Your task to perform on an android device: turn pop-ups off in chrome Image 0: 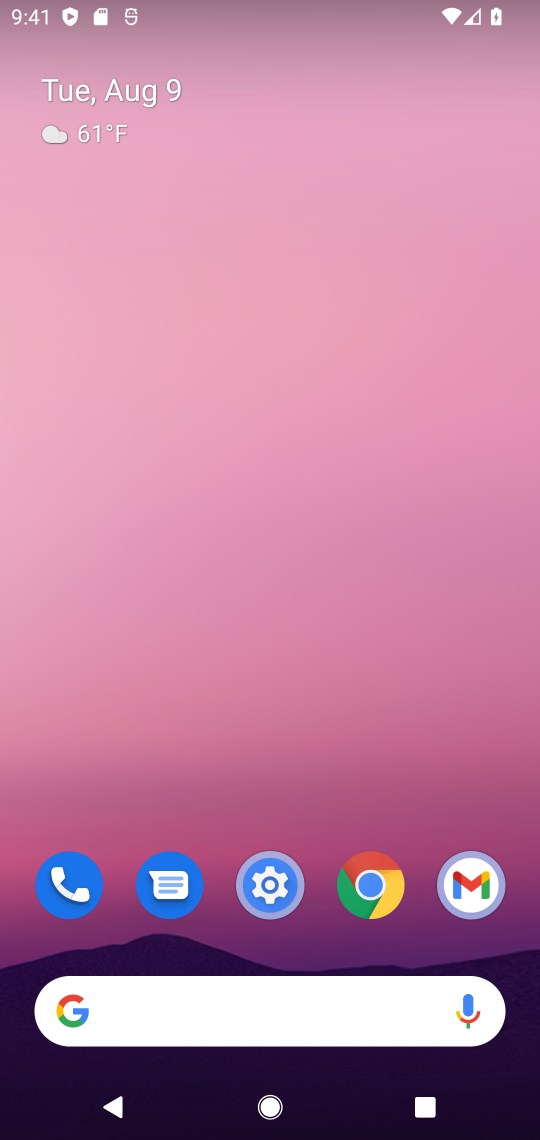
Step 0: press home button
Your task to perform on an android device: turn pop-ups off in chrome Image 1: 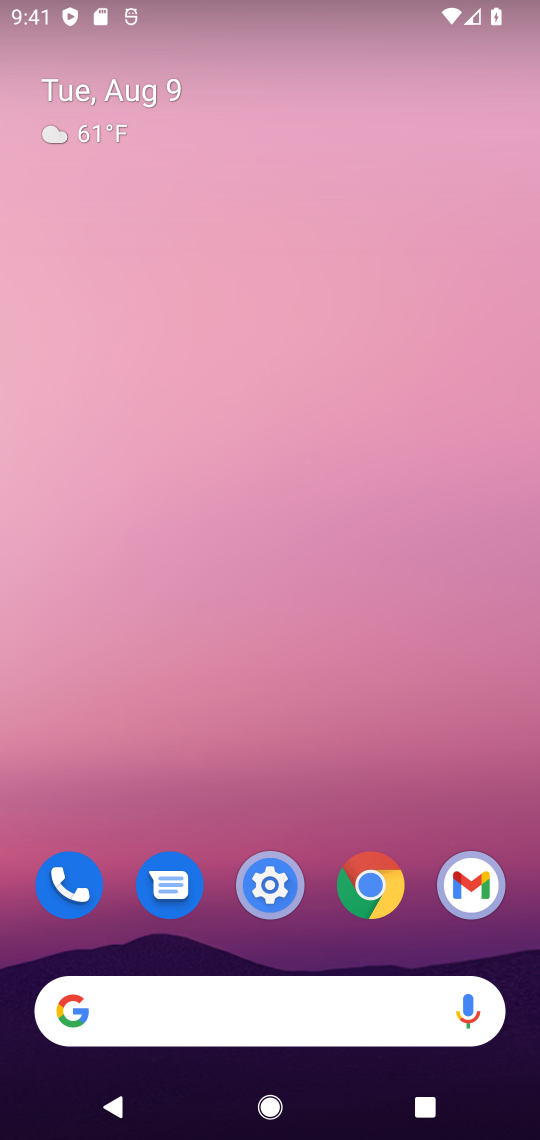
Step 1: click (371, 874)
Your task to perform on an android device: turn pop-ups off in chrome Image 2: 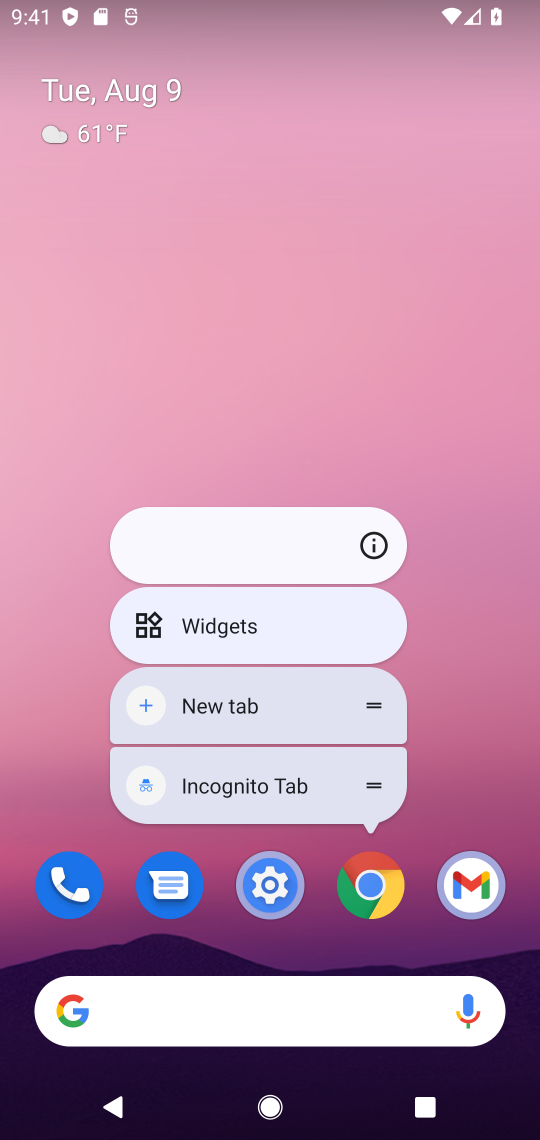
Step 2: click (521, 604)
Your task to perform on an android device: turn pop-ups off in chrome Image 3: 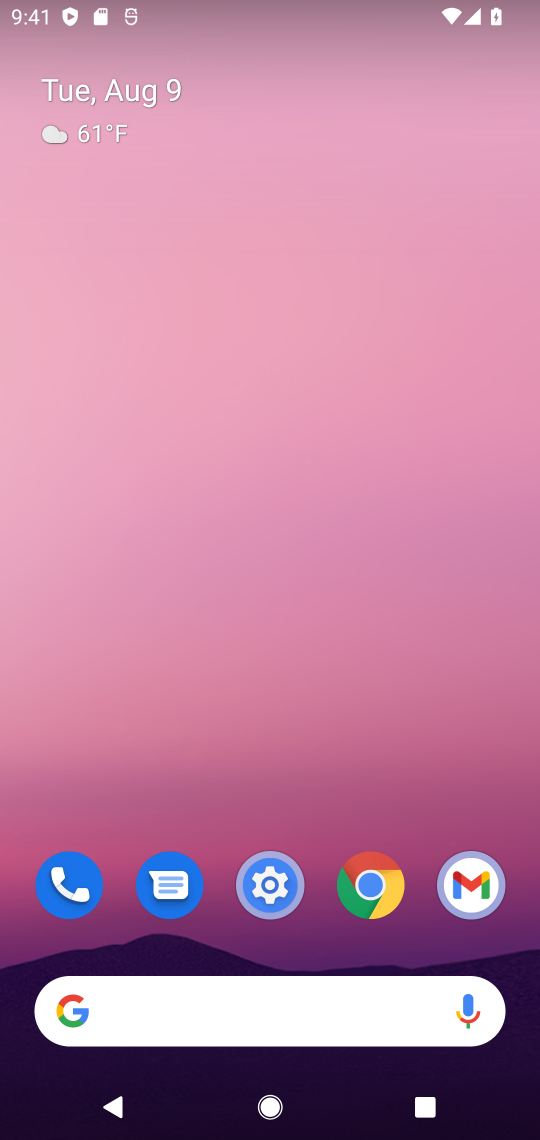
Step 3: click (367, 876)
Your task to perform on an android device: turn pop-ups off in chrome Image 4: 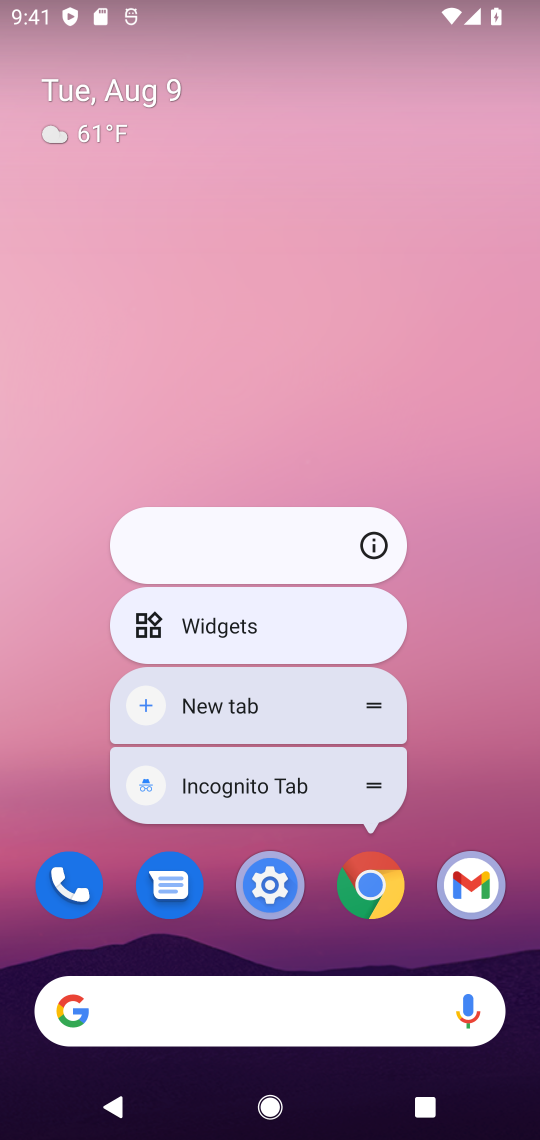
Step 4: click (484, 734)
Your task to perform on an android device: turn pop-ups off in chrome Image 5: 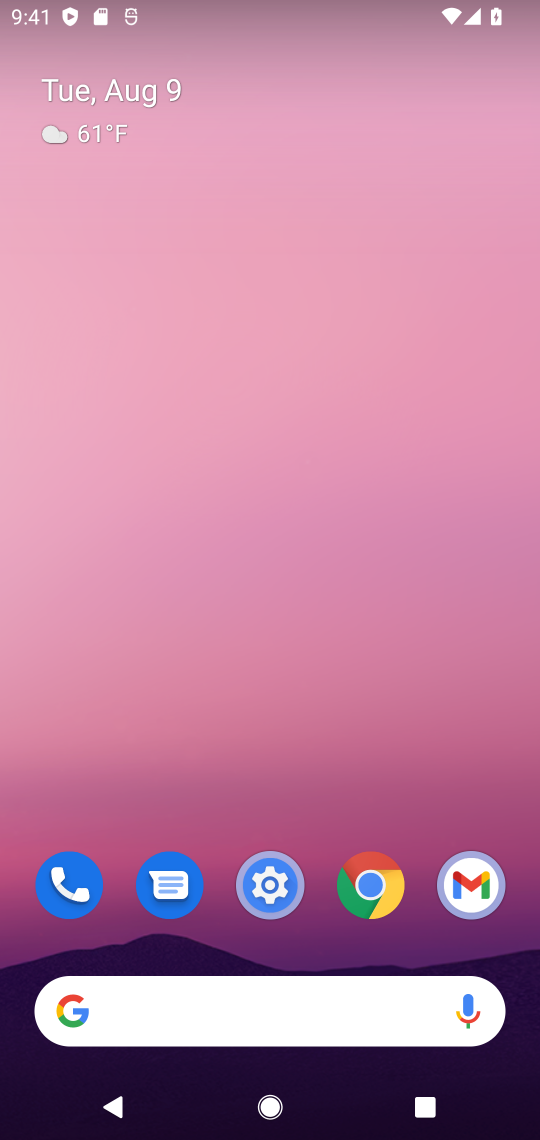
Step 5: drag from (312, 852) to (370, 133)
Your task to perform on an android device: turn pop-ups off in chrome Image 6: 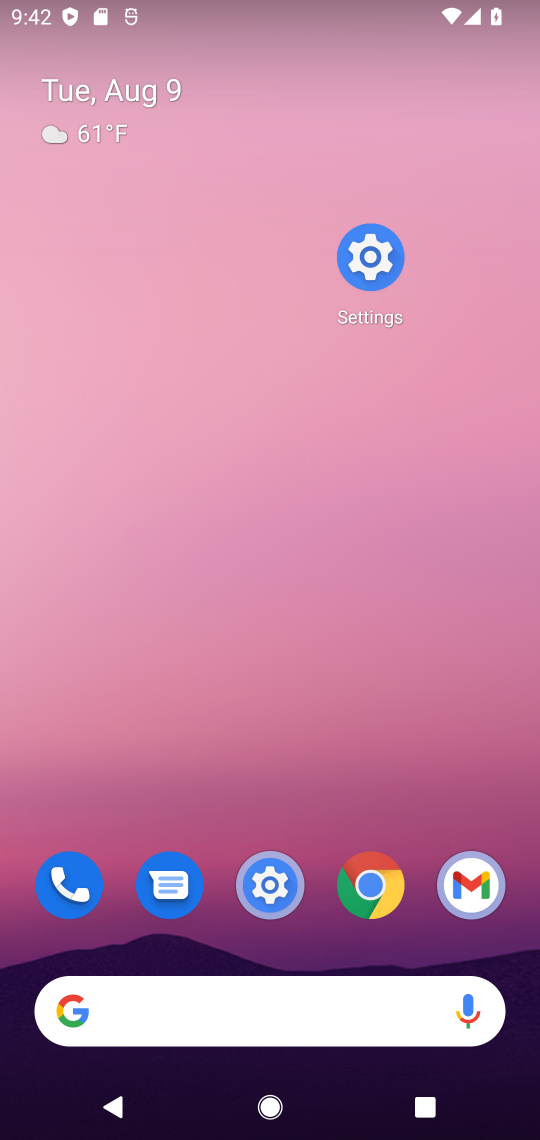
Step 6: click (434, 832)
Your task to perform on an android device: turn pop-ups off in chrome Image 7: 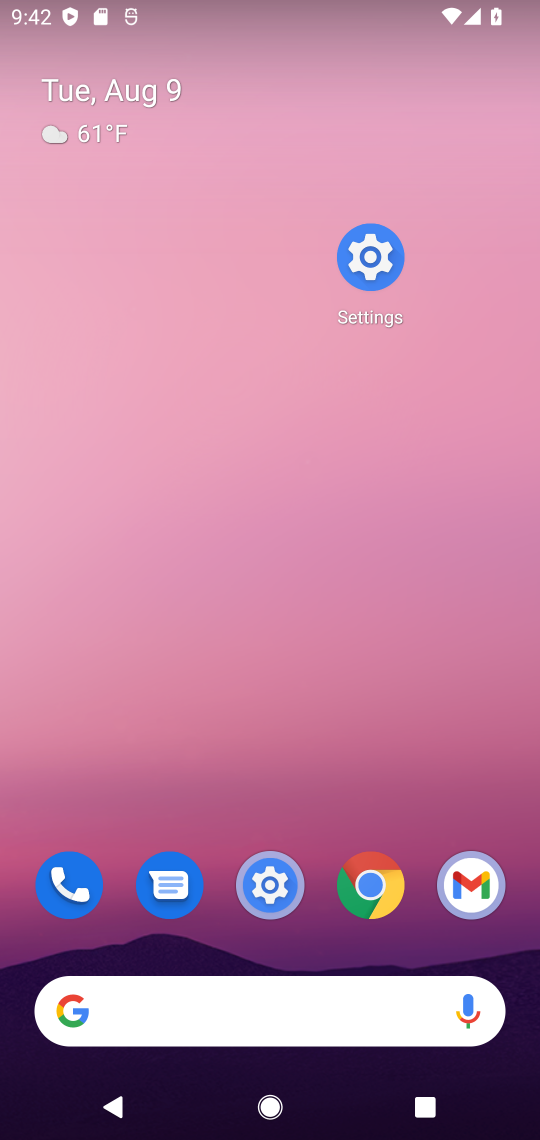
Step 7: drag from (419, 844) to (454, 70)
Your task to perform on an android device: turn pop-ups off in chrome Image 8: 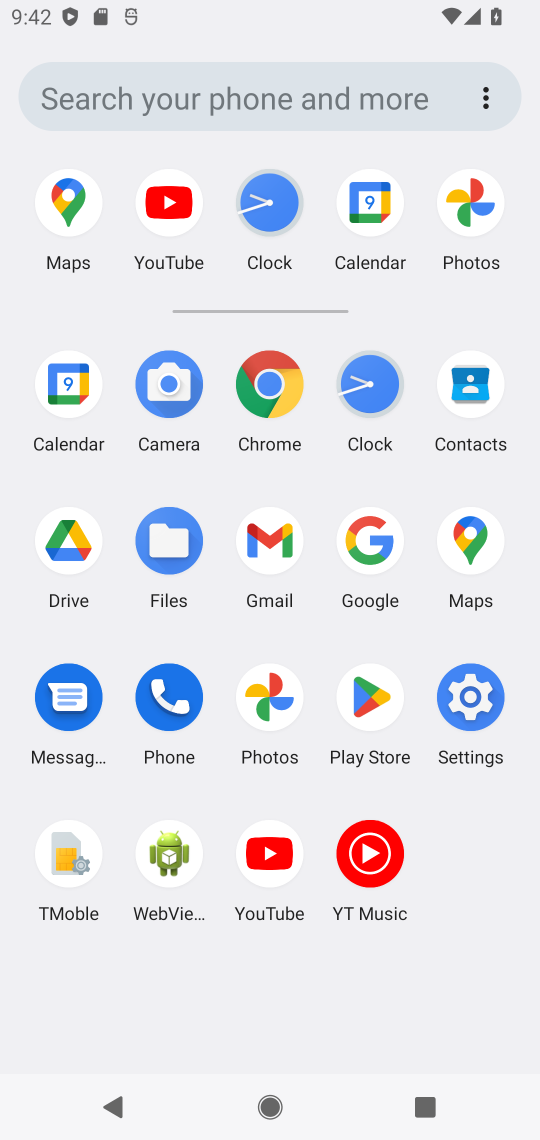
Step 8: click (269, 374)
Your task to perform on an android device: turn pop-ups off in chrome Image 9: 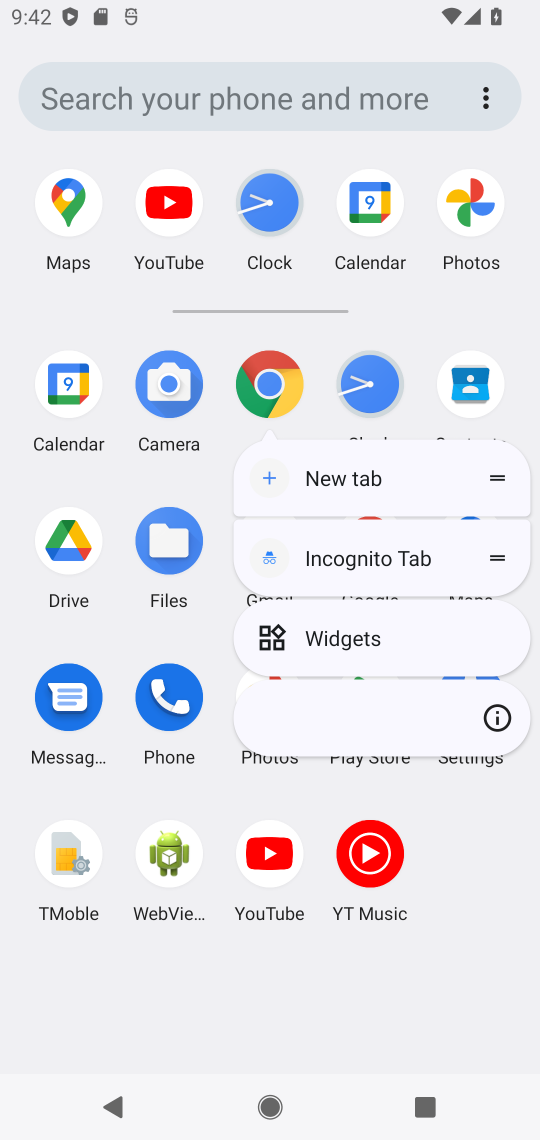
Step 9: click (266, 372)
Your task to perform on an android device: turn pop-ups off in chrome Image 10: 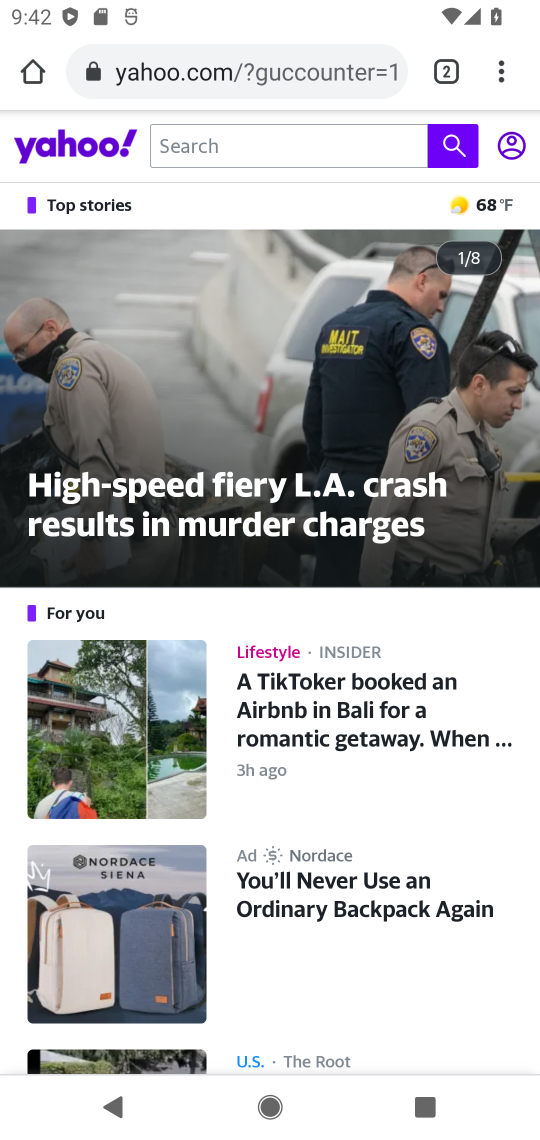
Step 10: click (497, 68)
Your task to perform on an android device: turn pop-ups off in chrome Image 11: 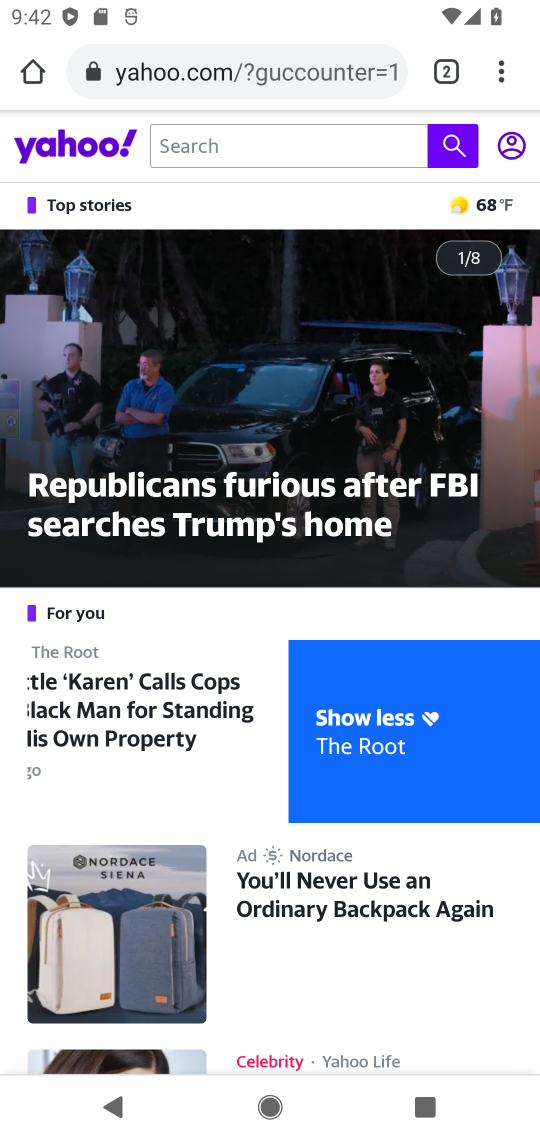
Step 11: click (500, 73)
Your task to perform on an android device: turn pop-ups off in chrome Image 12: 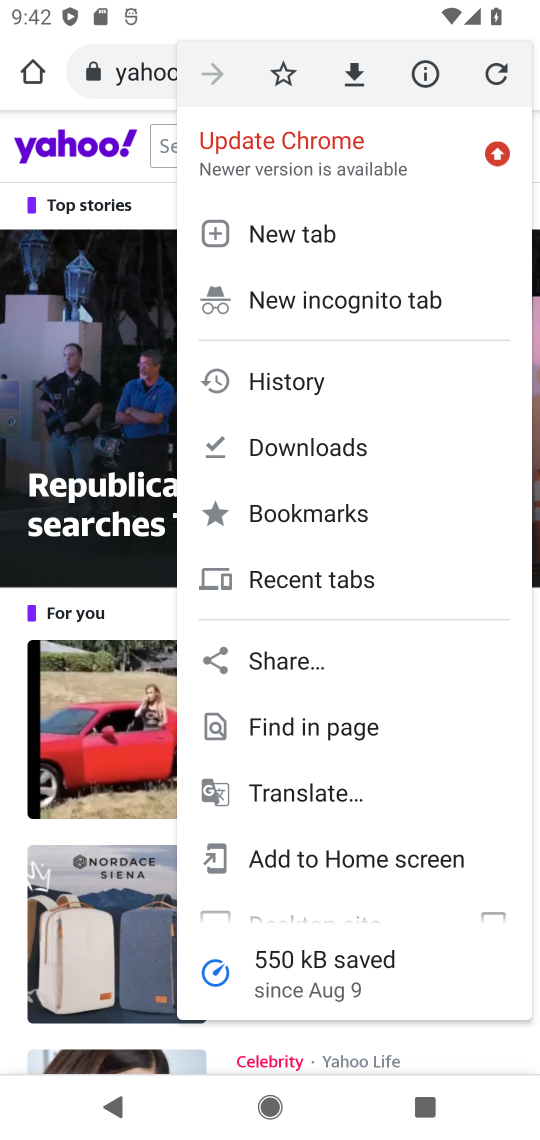
Step 12: drag from (384, 862) to (397, 147)
Your task to perform on an android device: turn pop-ups off in chrome Image 13: 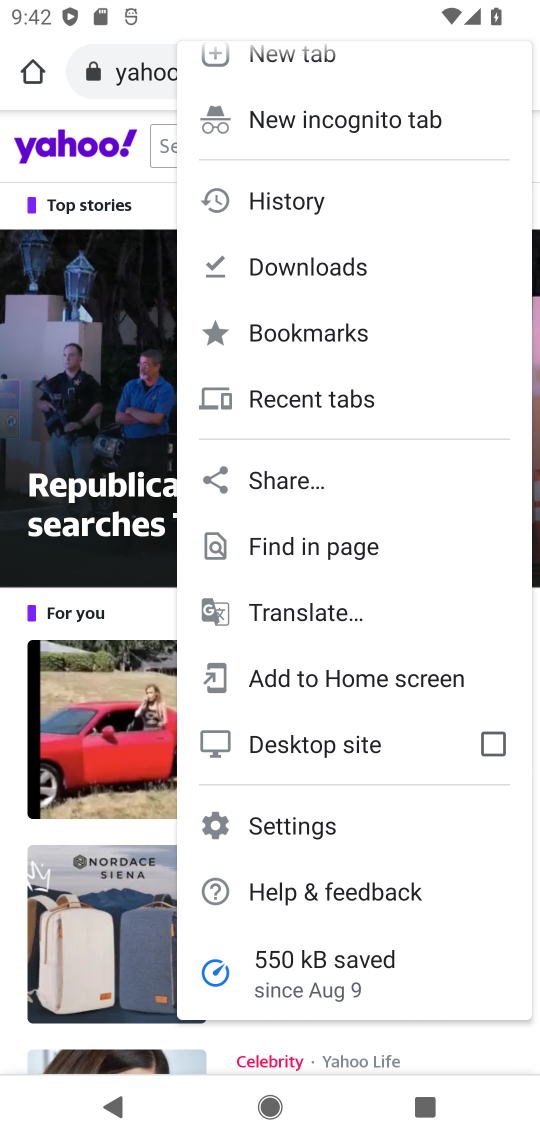
Step 13: click (344, 820)
Your task to perform on an android device: turn pop-ups off in chrome Image 14: 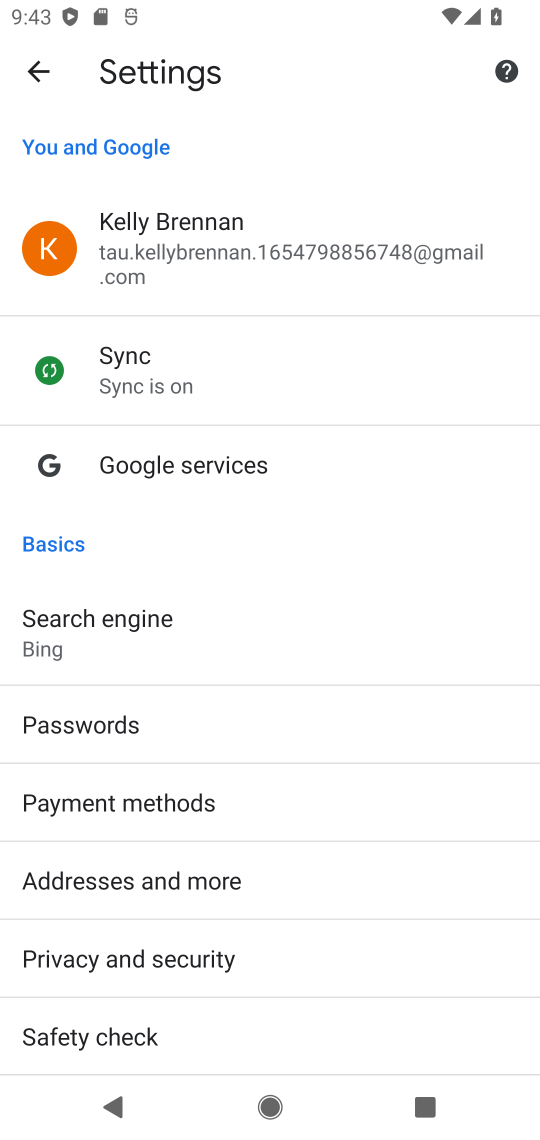
Step 14: drag from (250, 1027) to (325, 247)
Your task to perform on an android device: turn pop-ups off in chrome Image 15: 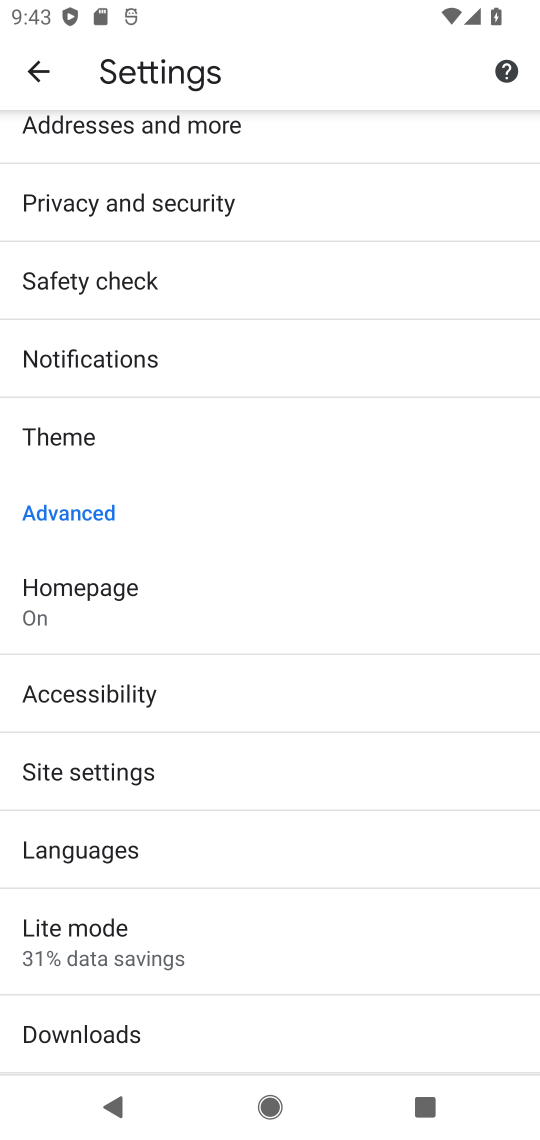
Step 15: click (158, 751)
Your task to perform on an android device: turn pop-ups off in chrome Image 16: 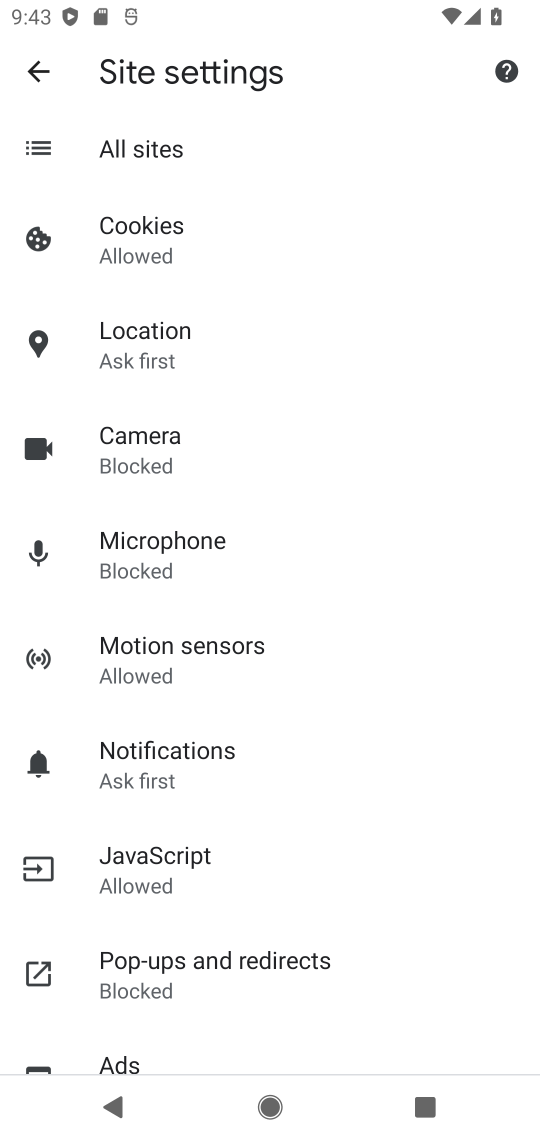
Step 16: click (228, 970)
Your task to perform on an android device: turn pop-ups off in chrome Image 17: 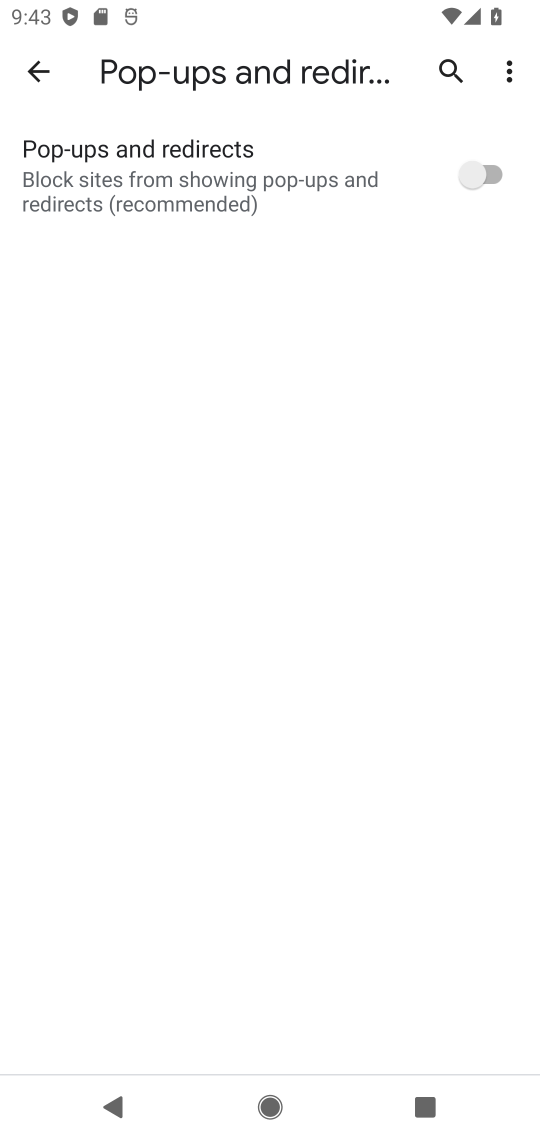
Step 17: task complete